Your task to perform on an android device: Open Youtube and go to "Your channel" Image 0: 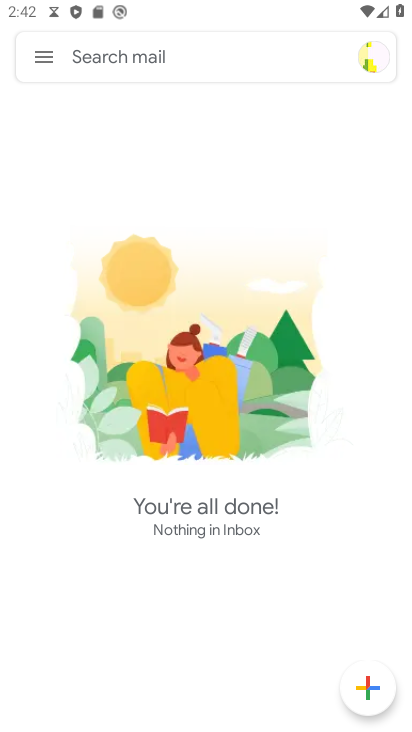
Step 0: drag from (302, 350) to (325, 287)
Your task to perform on an android device: Open Youtube and go to "Your channel" Image 1: 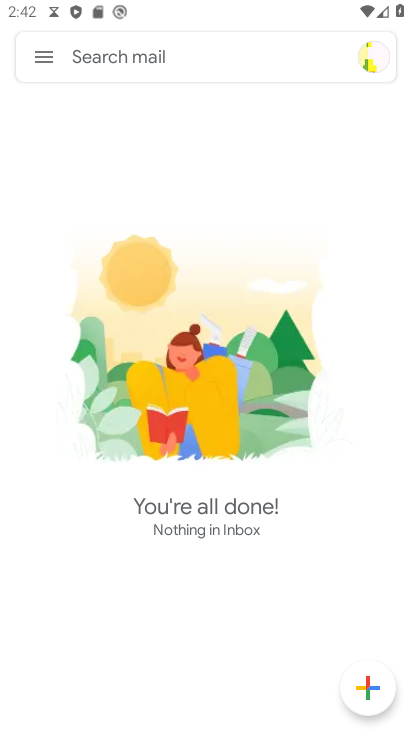
Step 1: drag from (210, 552) to (275, 291)
Your task to perform on an android device: Open Youtube and go to "Your channel" Image 2: 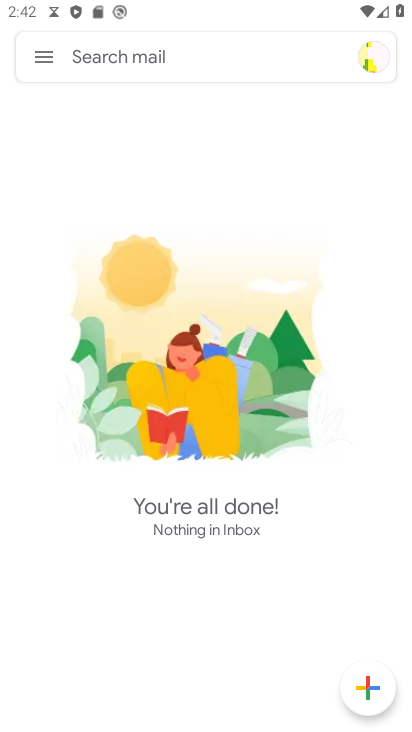
Step 2: click (44, 61)
Your task to perform on an android device: Open Youtube and go to "Your channel" Image 3: 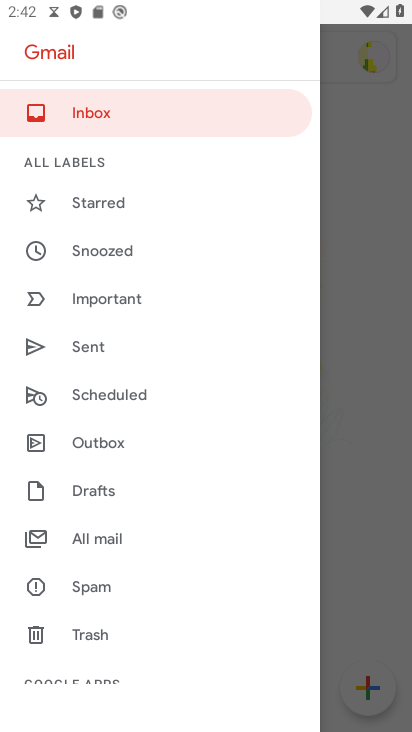
Step 3: drag from (157, 581) to (256, 130)
Your task to perform on an android device: Open Youtube and go to "Your channel" Image 4: 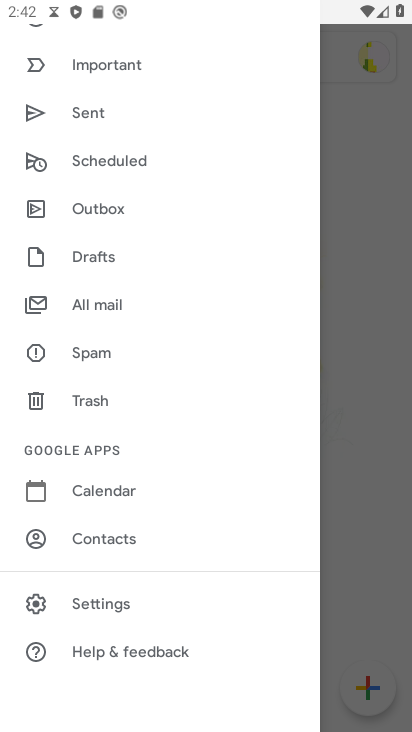
Step 4: press home button
Your task to perform on an android device: Open Youtube and go to "Your channel" Image 5: 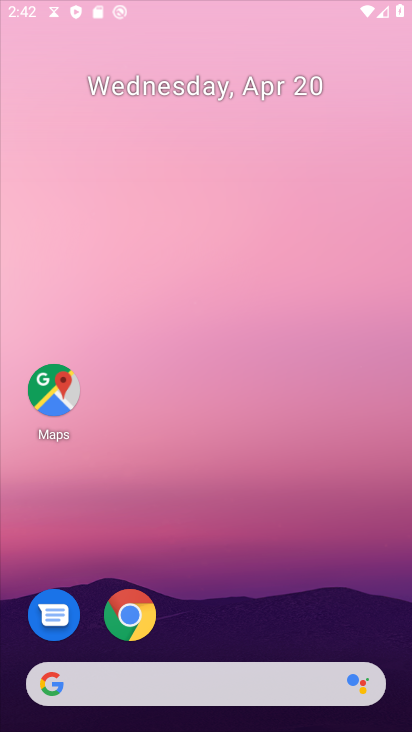
Step 5: drag from (188, 583) to (321, 26)
Your task to perform on an android device: Open Youtube and go to "Your channel" Image 6: 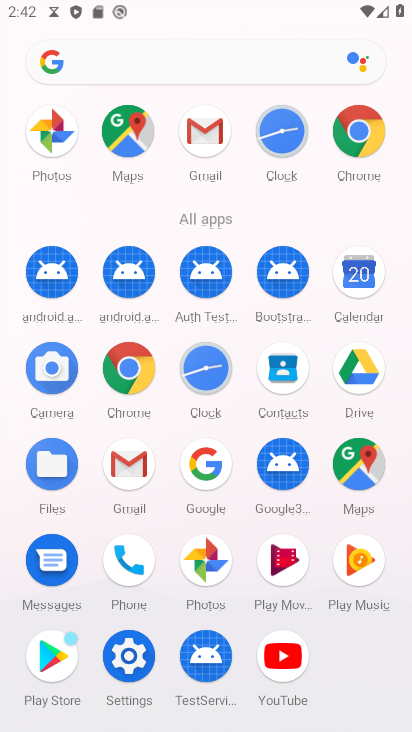
Step 6: click (268, 656)
Your task to perform on an android device: Open Youtube and go to "Your channel" Image 7: 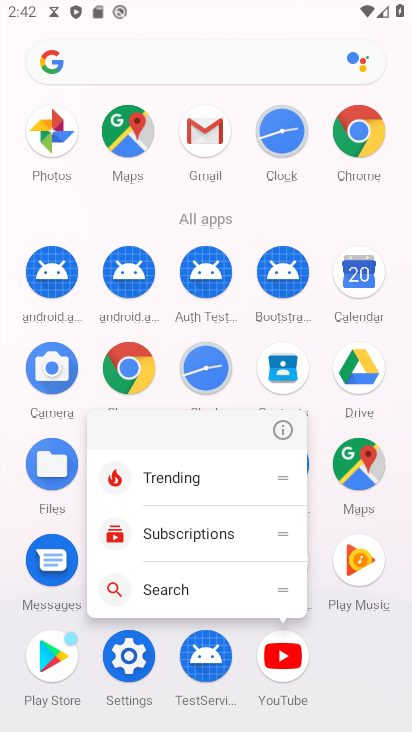
Step 7: click (270, 427)
Your task to perform on an android device: Open Youtube and go to "Your channel" Image 8: 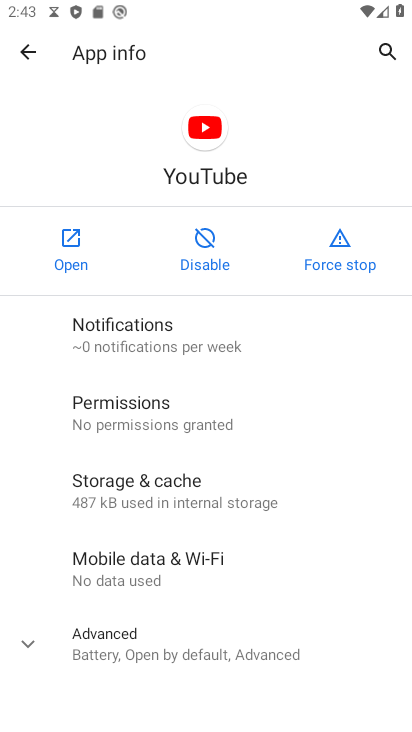
Step 8: click (69, 263)
Your task to perform on an android device: Open Youtube and go to "Your channel" Image 9: 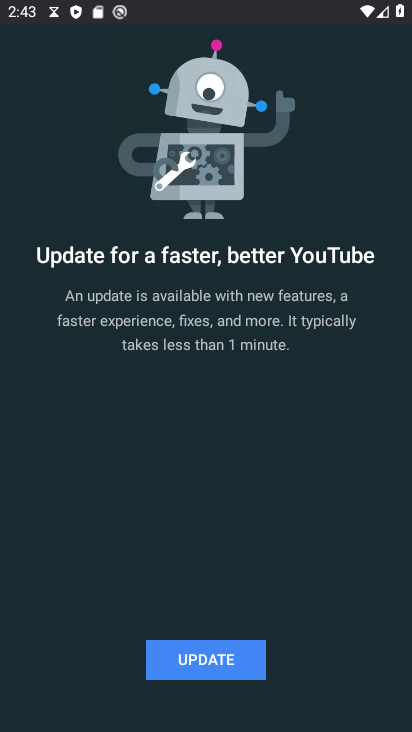
Step 9: drag from (255, 510) to (275, 357)
Your task to perform on an android device: Open Youtube and go to "Your channel" Image 10: 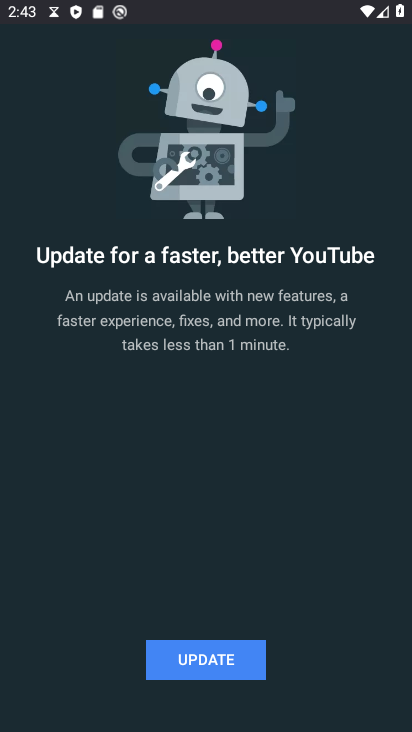
Step 10: drag from (178, 592) to (277, 281)
Your task to perform on an android device: Open Youtube and go to "Your channel" Image 11: 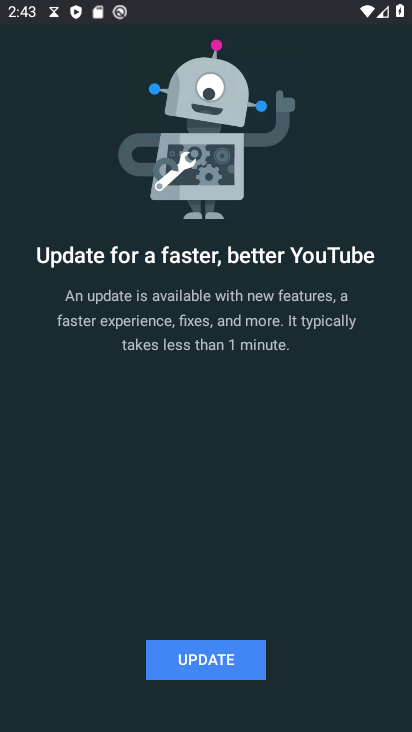
Step 11: drag from (177, 255) to (99, 565)
Your task to perform on an android device: Open Youtube and go to "Your channel" Image 12: 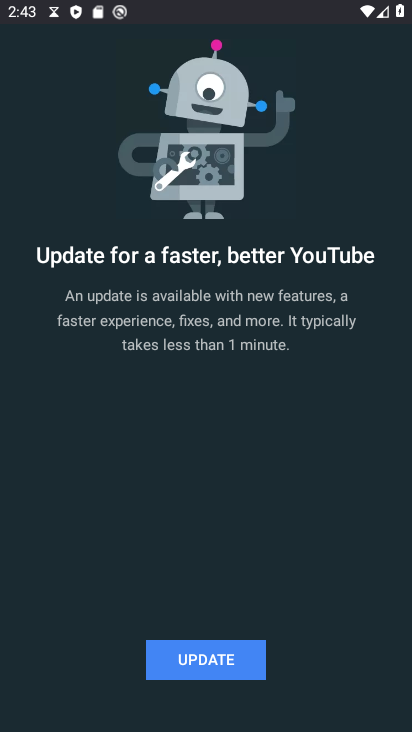
Step 12: drag from (193, 282) to (389, 493)
Your task to perform on an android device: Open Youtube and go to "Your channel" Image 13: 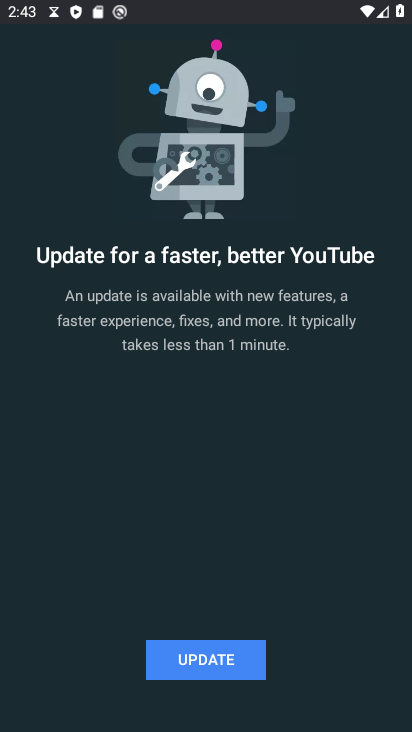
Step 13: click (197, 667)
Your task to perform on an android device: Open Youtube and go to "Your channel" Image 14: 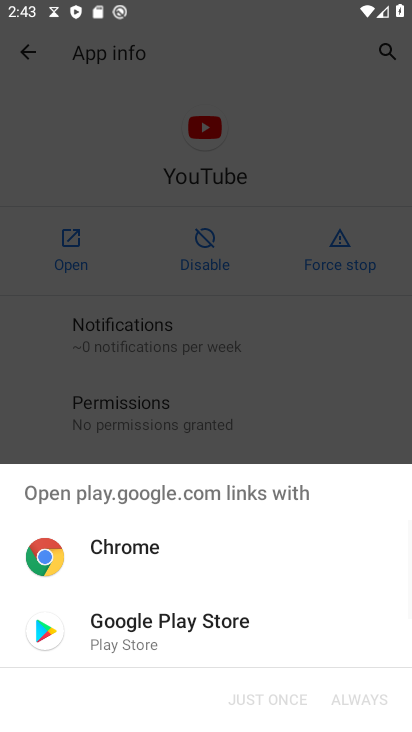
Step 14: click (76, 650)
Your task to perform on an android device: Open Youtube and go to "Your channel" Image 15: 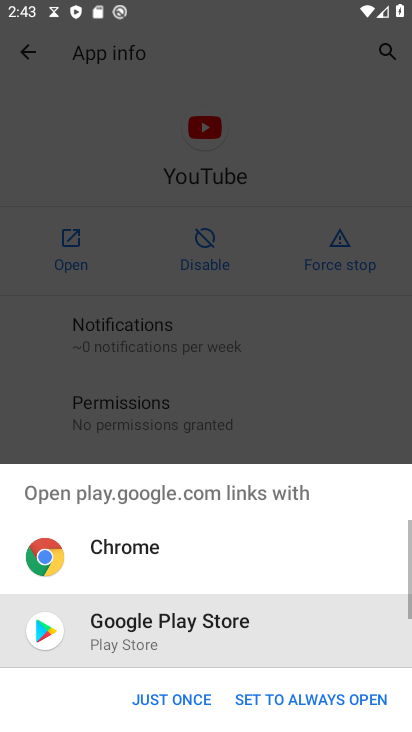
Step 15: click (169, 690)
Your task to perform on an android device: Open Youtube and go to "Your channel" Image 16: 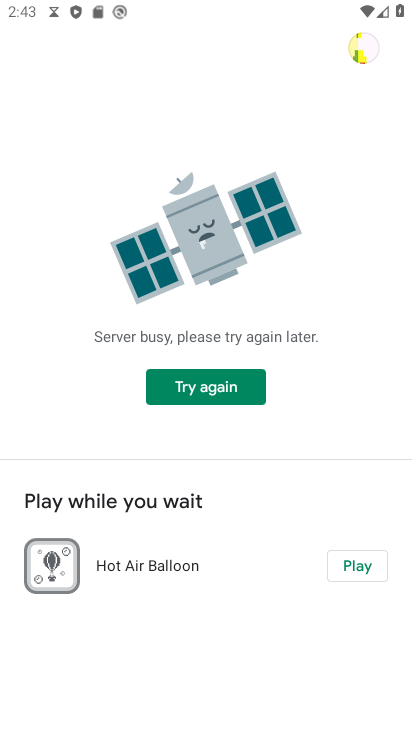
Step 16: click (200, 380)
Your task to perform on an android device: Open Youtube and go to "Your channel" Image 17: 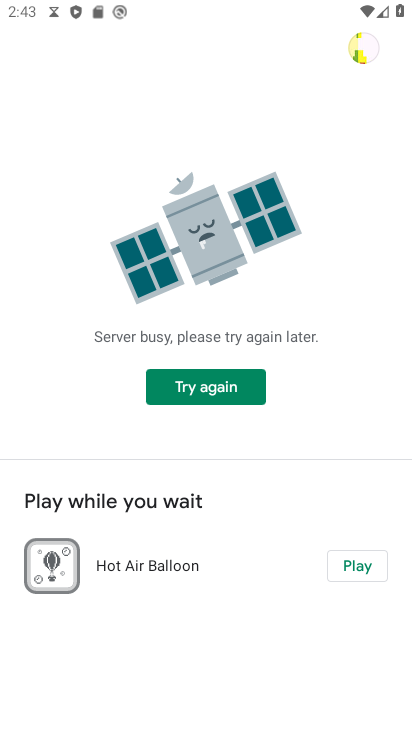
Step 17: task complete